Your task to perform on an android device: Open maps Image 0: 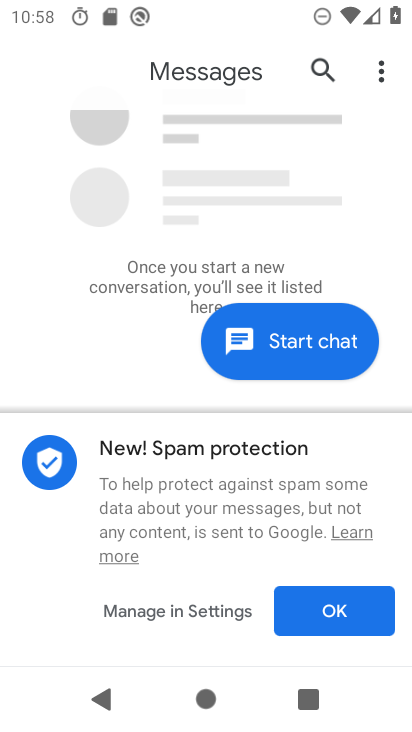
Step 0: press home button
Your task to perform on an android device: Open maps Image 1: 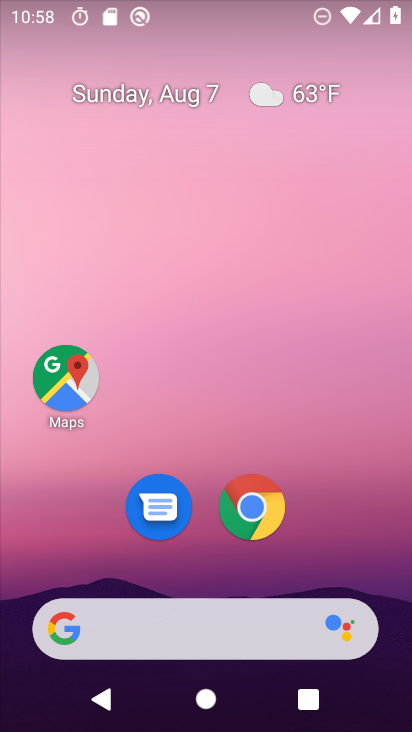
Step 1: drag from (355, 502) to (321, 0)
Your task to perform on an android device: Open maps Image 2: 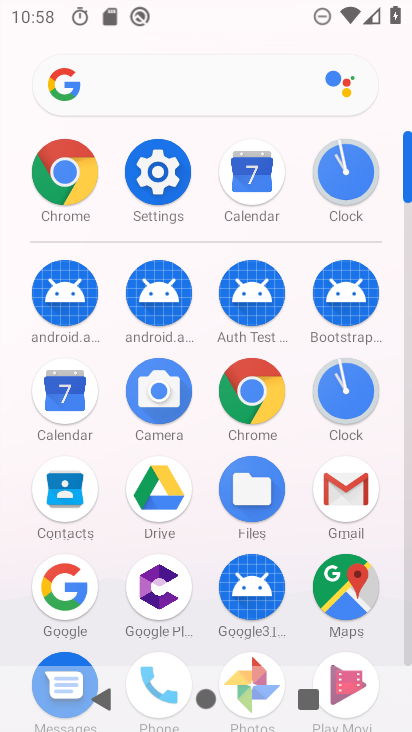
Step 2: click (340, 589)
Your task to perform on an android device: Open maps Image 3: 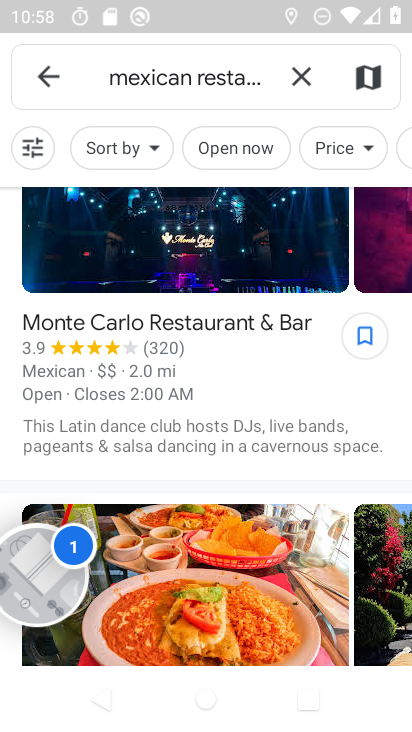
Step 3: task complete